Your task to perform on an android device: turn off location Image 0: 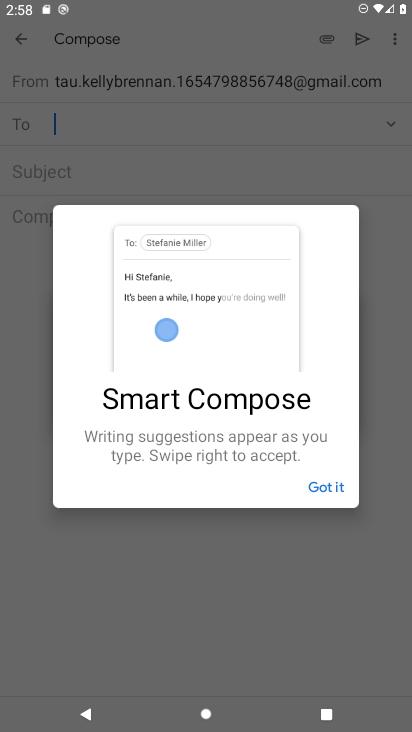
Step 0: press home button
Your task to perform on an android device: turn off location Image 1: 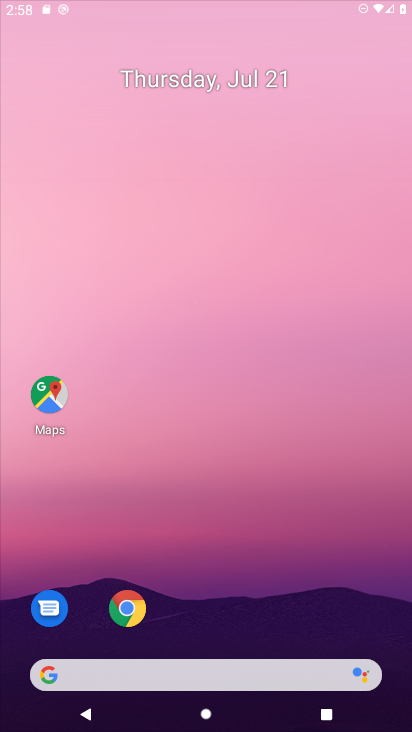
Step 1: drag from (202, 574) to (184, 216)
Your task to perform on an android device: turn off location Image 2: 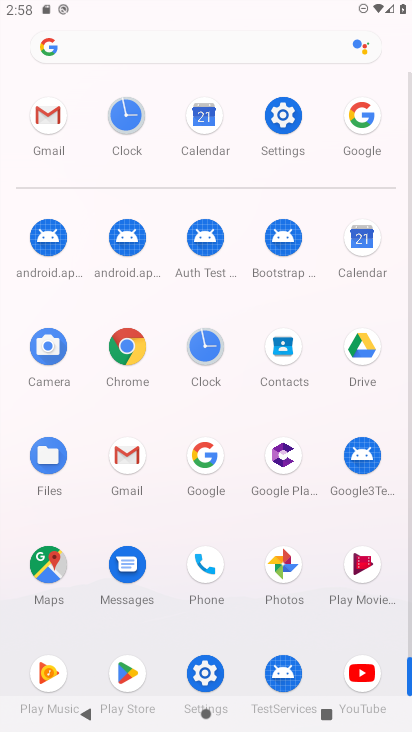
Step 2: click (289, 115)
Your task to perform on an android device: turn off location Image 3: 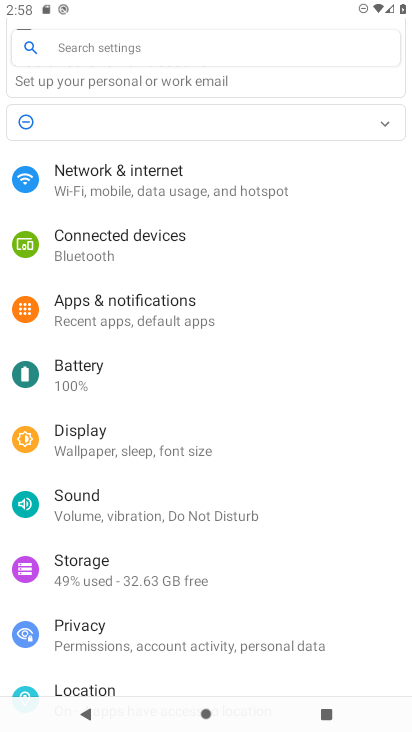
Step 3: click (120, 681)
Your task to perform on an android device: turn off location Image 4: 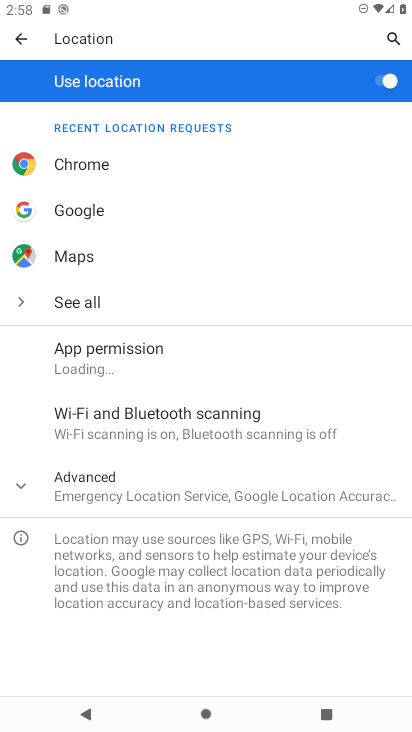
Step 4: click (381, 86)
Your task to perform on an android device: turn off location Image 5: 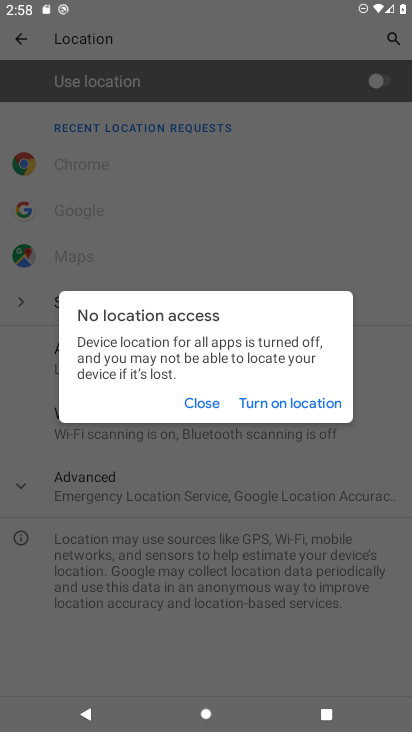
Step 5: task complete